Your task to perform on an android device: Clear all items from cart on newegg.com. Search for usb-c on newegg.com, select the first entry, add it to the cart, then select checkout. Image 0: 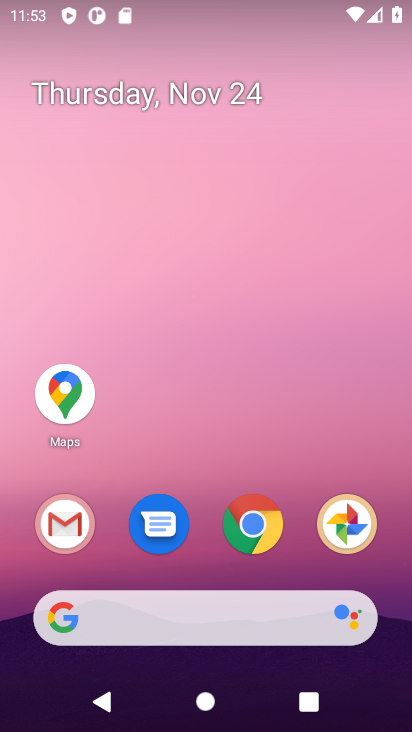
Step 0: click (260, 531)
Your task to perform on an android device: Clear all items from cart on newegg.com. Search for usb-c on newegg.com, select the first entry, add it to the cart, then select checkout. Image 1: 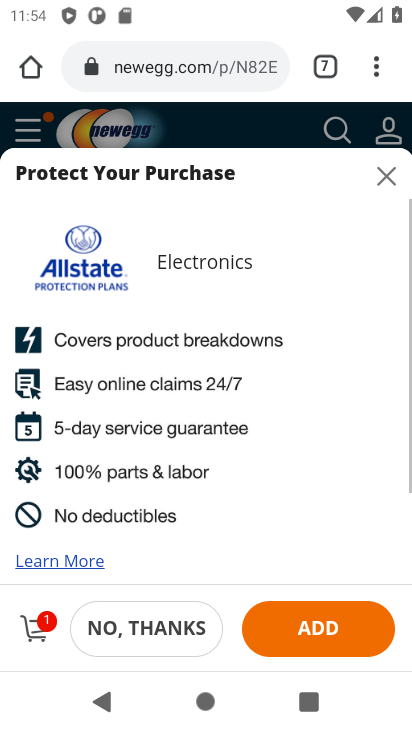
Step 1: click (387, 176)
Your task to perform on an android device: Clear all items from cart on newegg.com. Search for usb-c on newegg.com, select the first entry, add it to the cart, then select checkout. Image 2: 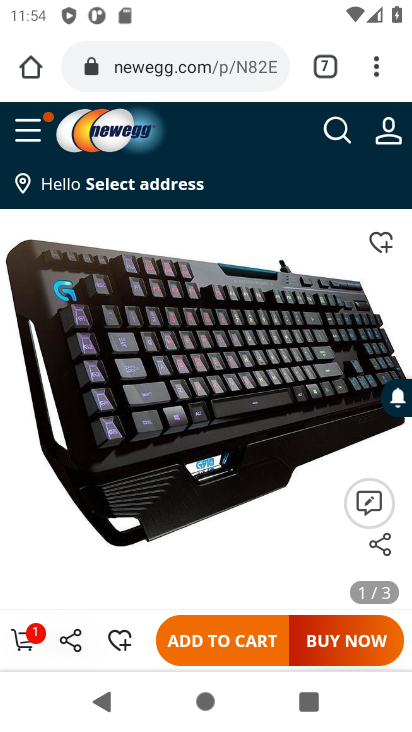
Step 2: click (31, 637)
Your task to perform on an android device: Clear all items from cart on newegg.com. Search for usb-c on newegg.com, select the first entry, add it to the cart, then select checkout. Image 3: 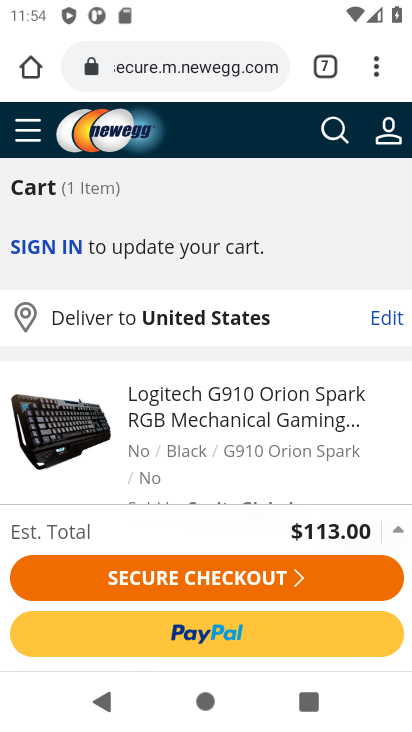
Step 3: drag from (133, 452) to (178, 241)
Your task to perform on an android device: Clear all items from cart on newegg.com. Search for usb-c on newegg.com, select the first entry, add it to the cart, then select checkout. Image 4: 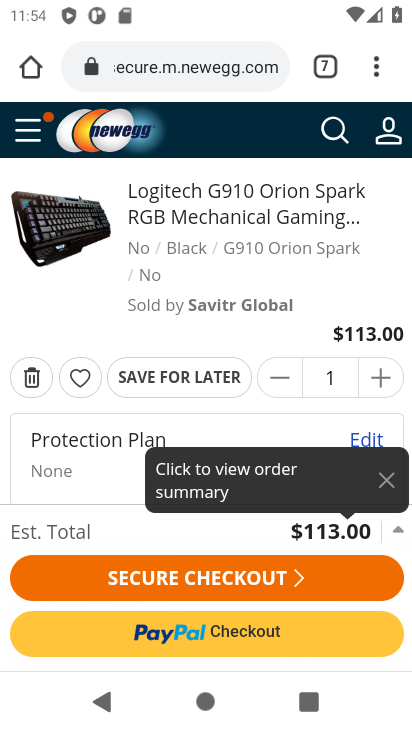
Step 4: click (28, 377)
Your task to perform on an android device: Clear all items from cart on newegg.com. Search for usb-c on newegg.com, select the first entry, add it to the cart, then select checkout. Image 5: 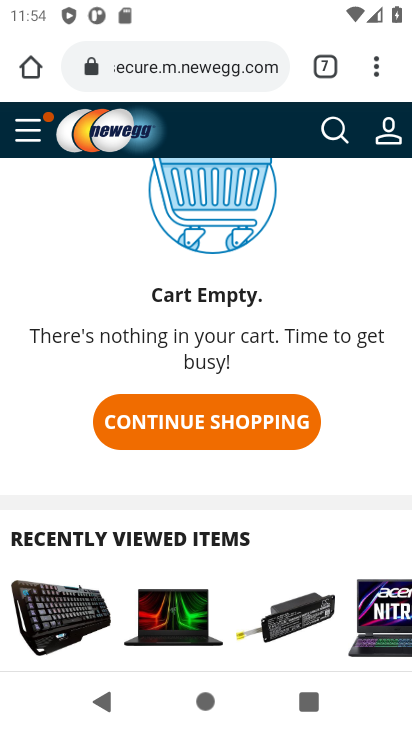
Step 5: click (202, 426)
Your task to perform on an android device: Clear all items from cart on newegg.com. Search for usb-c on newegg.com, select the first entry, add it to the cart, then select checkout. Image 6: 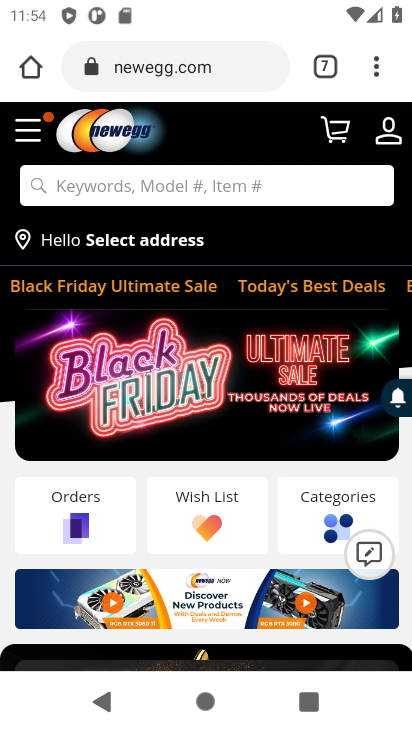
Step 6: click (131, 192)
Your task to perform on an android device: Clear all items from cart on newegg.com. Search for usb-c on newegg.com, select the first entry, add it to the cart, then select checkout. Image 7: 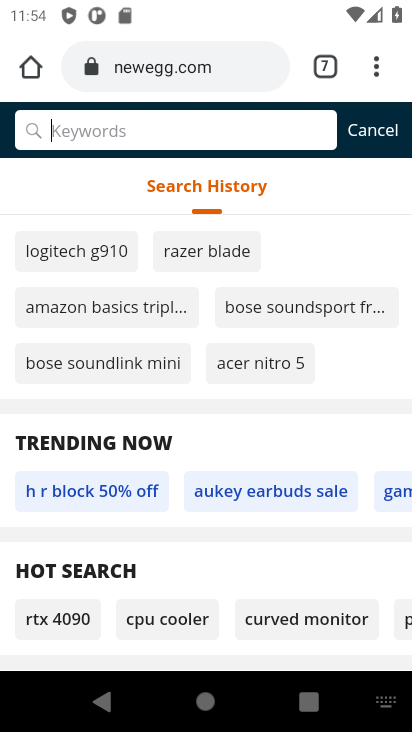
Step 7: type "usb-c "
Your task to perform on an android device: Clear all items from cart on newegg.com. Search for usb-c on newegg.com, select the first entry, add it to the cart, then select checkout. Image 8: 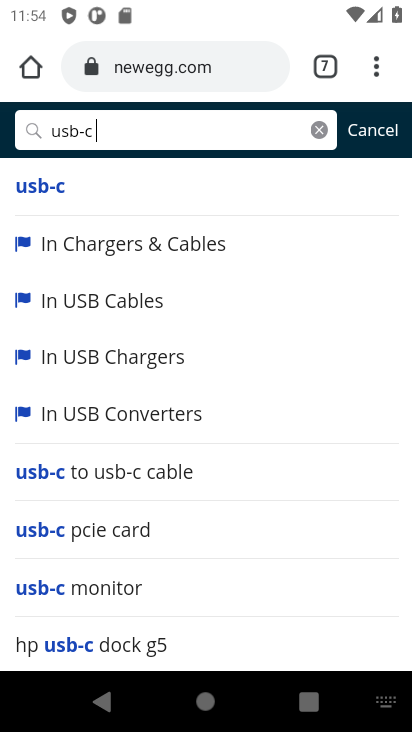
Step 8: click (45, 192)
Your task to perform on an android device: Clear all items from cart on newegg.com. Search for usb-c on newegg.com, select the first entry, add it to the cart, then select checkout. Image 9: 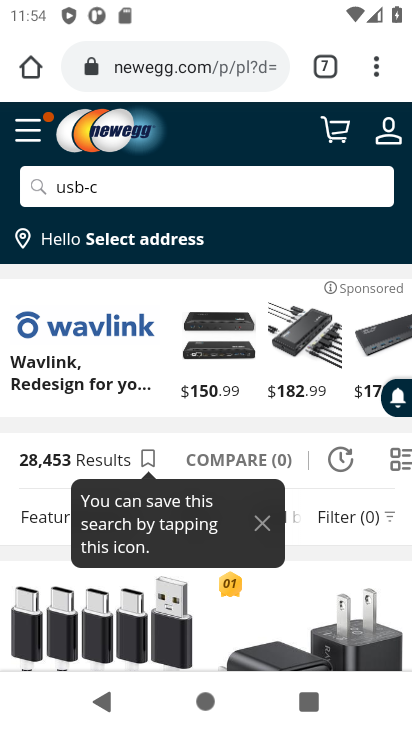
Step 9: drag from (195, 523) to (199, 300)
Your task to perform on an android device: Clear all items from cart on newegg.com. Search for usb-c on newegg.com, select the first entry, add it to the cart, then select checkout. Image 10: 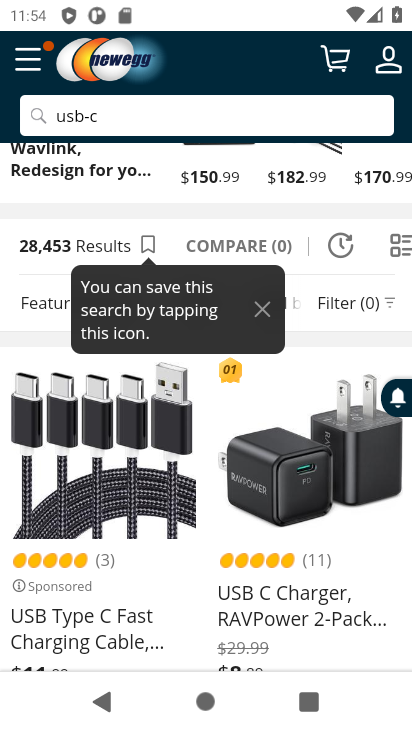
Step 10: drag from (203, 441) to (211, 336)
Your task to perform on an android device: Clear all items from cart on newegg.com. Search for usb-c on newegg.com, select the first entry, add it to the cart, then select checkout. Image 11: 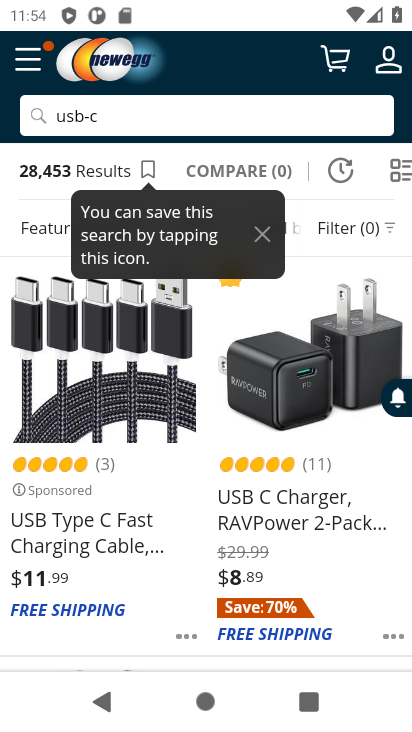
Step 11: click (86, 410)
Your task to perform on an android device: Clear all items from cart on newegg.com. Search for usb-c on newegg.com, select the first entry, add it to the cart, then select checkout. Image 12: 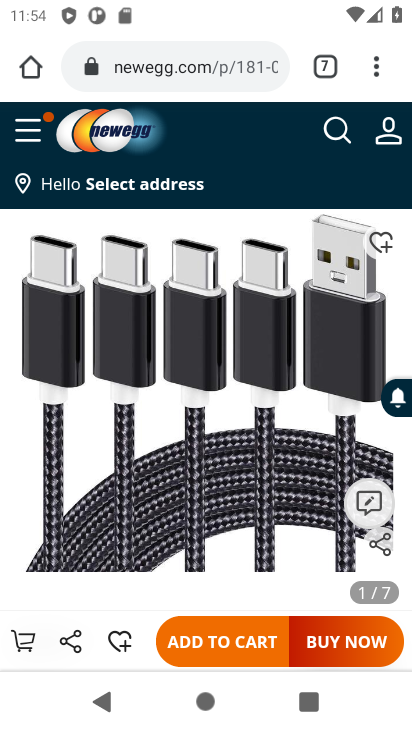
Step 12: click (212, 646)
Your task to perform on an android device: Clear all items from cart on newegg.com. Search for usb-c on newegg.com, select the first entry, add it to the cart, then select checkout. Image 13: 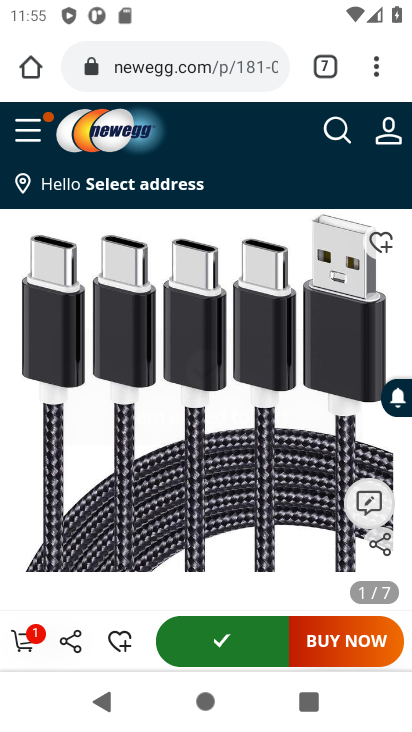
Step 13: click (29, 639)
Your task to perform on an android device: Clear all items from cart on newegg.com. Search for usb-c on newegg.com, select the first entry, add it to the cart, then select checkout. Image 14: 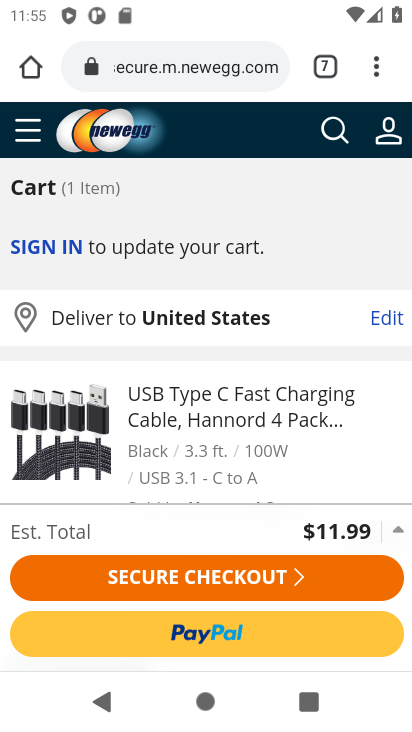
Step 14: click (190, 633)
Your task to perform on an android device: Clear all items from cart on newegg.com. Search for usb-c on newegg.com, select the first entry, add it to the cart, then select checkout. Image 15: 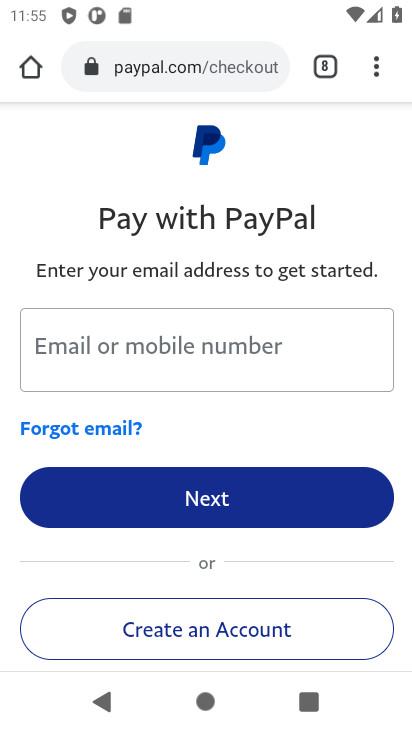
Step 15: task complete